Your task to perform on an android device: Open location settings Image 0: 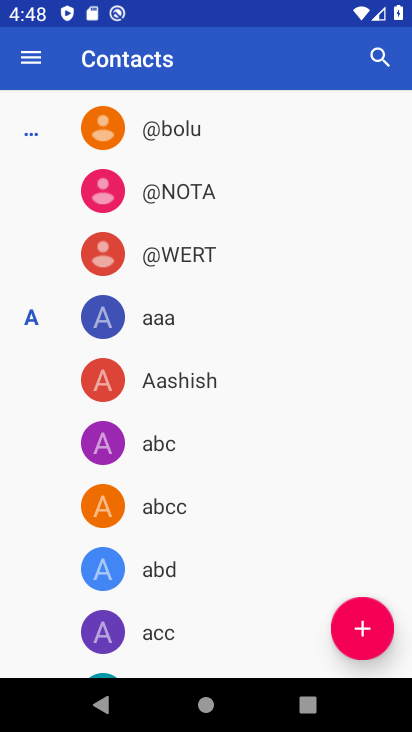
Step 0: press home button
Your task to perform on an android device: Open location settings Image 1: 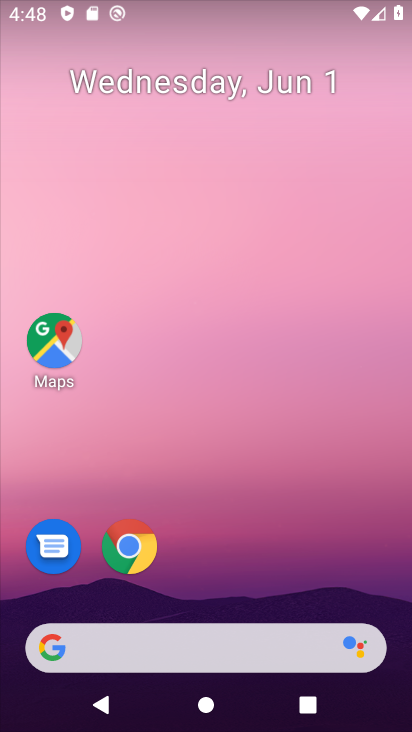
Step 1: drag from (201, 504) to (227, 111)
Your task to perform on an android device: Open location settings Image 2: 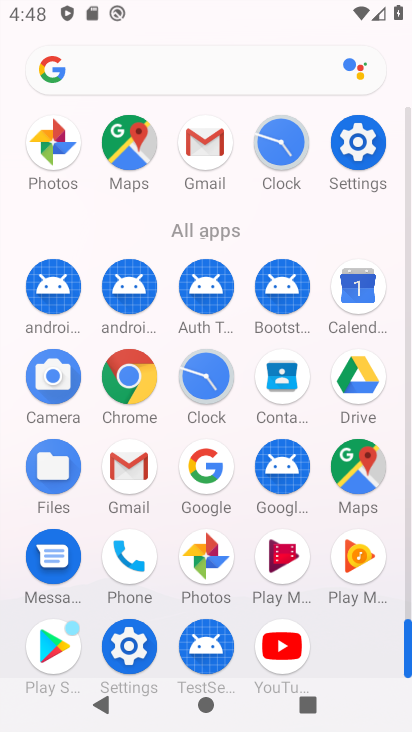
Step 2: click (130, 636)
Your task to perform on an android device: Open location settings Image 3: 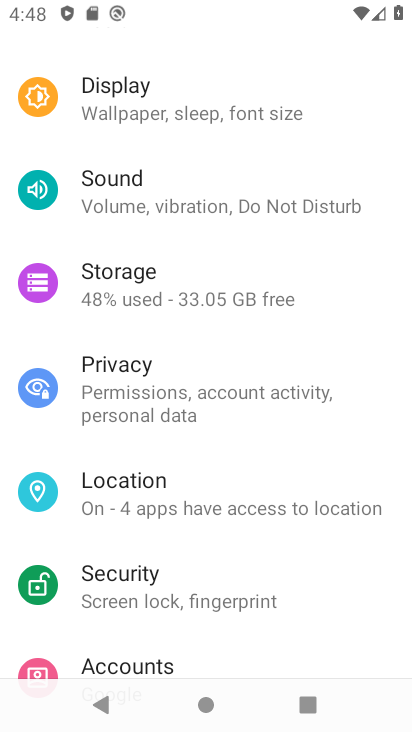
Step 3: drag from (186, 582) to (206, 446)
Your task to perform on an android device: Open location settings Image 4: 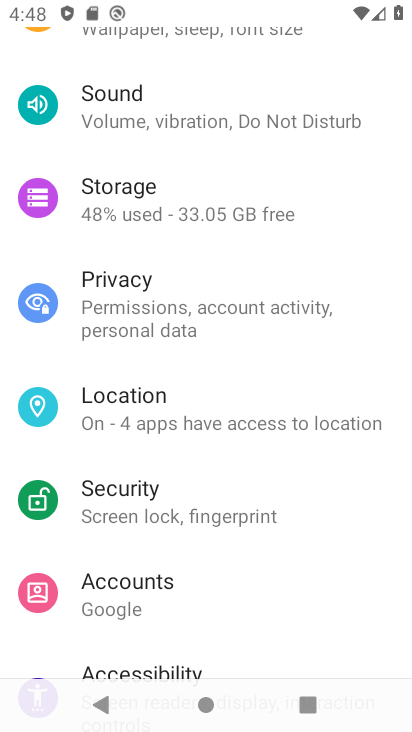
Step 4: click (166, 399)
Your task to perform on an android device: Open location settings Image 5: 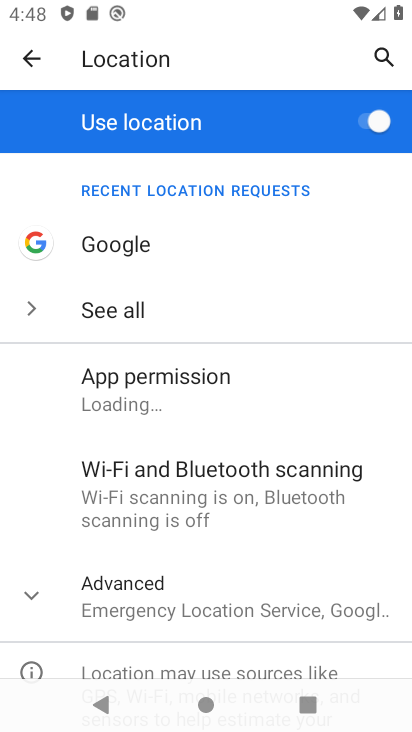
Step 5: click (230, 625)
Your task to perform on an android device: Open location settings Image 6: 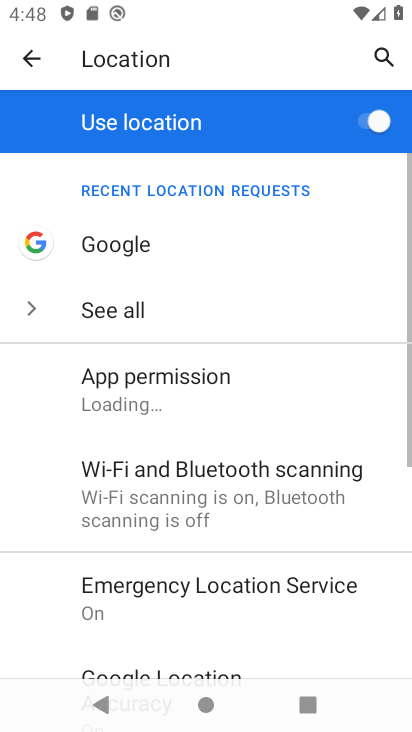
Step 6: task complete